Your task to perform on an android device: Clear all items from cart on newegg. Search for usb-c to usb-a on newegg, select the first entry, and add it to the cart. Image 0: 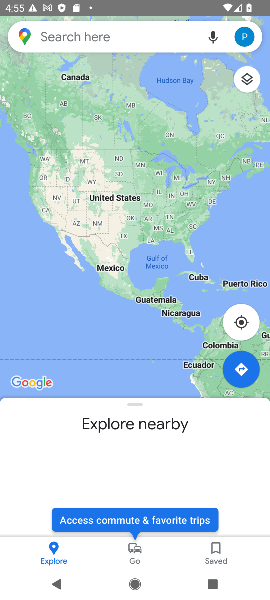
Step 0: press home button
Your task to perform on an android device: Clear all items from cart on newegg. Search for usb-c to usb-a on newegg, select the first entry, and add it to the cart. Image 1: 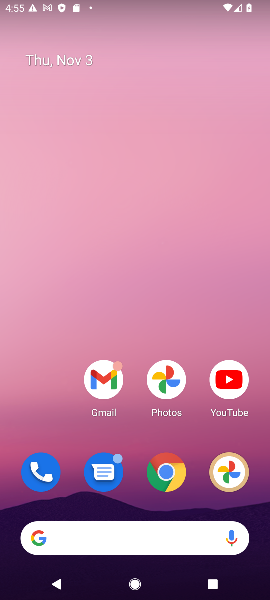
Step 1: click (170, 476)
Your task to perform on an android device: Clear all items from cart on newegg. Search for usb-c to usb-a on newegg, select the first entry, and add it to the cart. Image 2: 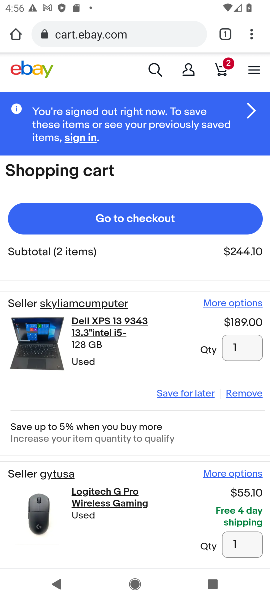
Step 2: click (86, 35)
Your task to perform on an android device: Clear all items from cart on newegg. Search for usb-c to usb-a on newegg, select the first entry, and add it to the cart. Image 3: 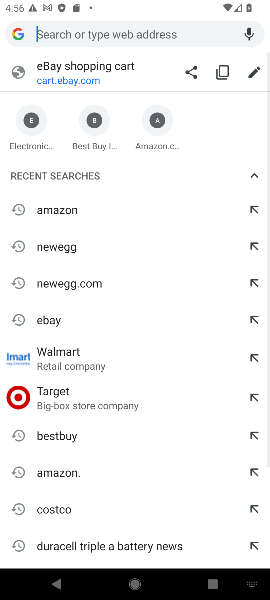
Step 3: type " newegg"
Your task to perform on an android device: Clear all items from cart on newegg. Search for usb-c to usb-a on newegg, select the first entry, and add it to the cart. Image 4: 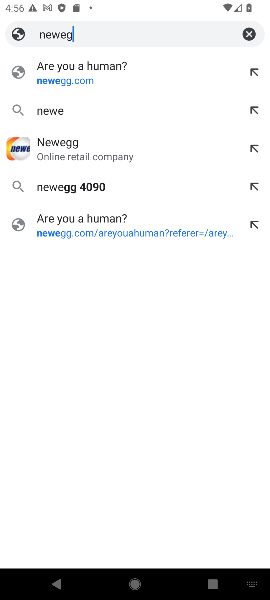
Step 4: type ""
Your task to perform on an android device: Clear all items from cart on newegg. Search for usb-c to usb-a on newegg, select the first entry, and add it to the cart. Image 5: 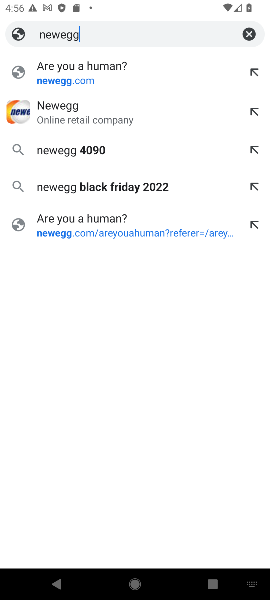
Step 5: click (76, 76)
Your task to perform on an android device: Clear all items from cart on newegg. Search for usb-c to usb-a on newegg, select the first entry, and add it to the cart. Image 6: 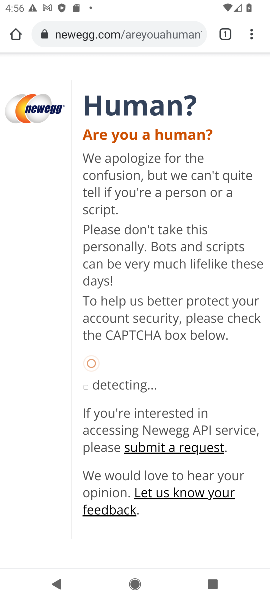
Step 6: press back button
Your task to perform on an android device: Clear all items from cart on newegg. Search for usb-c to usb-a on newegg, select the first entry, and add it to the cart. Image 7: 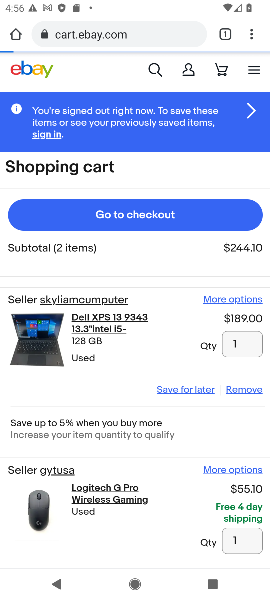
Step 7: click (83, 41)
Your task to perform on an android device: Clear all items from cart on newegg. Search for usb-c to usb-a on newegg, select the first entry, and add it to the cart. Image 8: 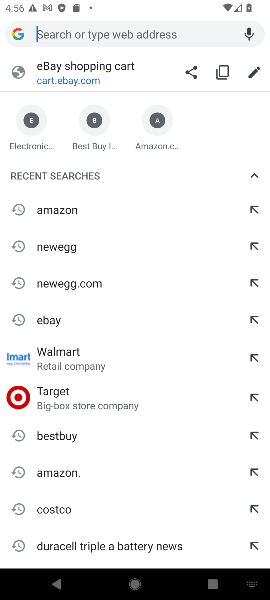
Step 8: click (103, 275)
Your task to perform on an android device: Clear all items from cart on newegg. Search for usb-c to usb-a on newegg, select the first entry, and add it to the cart. Image 9: 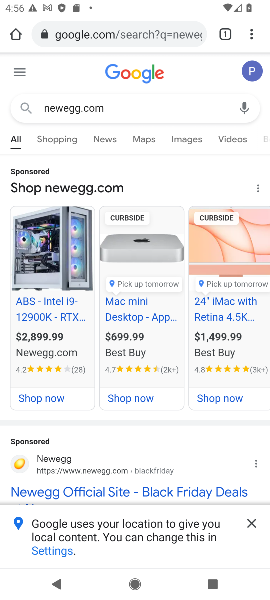
Step 9: click (113, 491)
Your task to perform on an android device: Clear all items from cart on newegg. Search for usb-c to usb-a on newegg, select the first entry, and add it to the cart. Image 10: 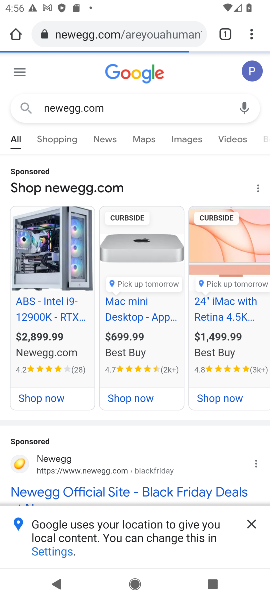
Step 10: click (253, 528)
Your task to perform on an android device: Clear all items from cart on newegg. Search for usb-c to usb-a on newegg, select the first entry, and add it to the cart. Image 11: 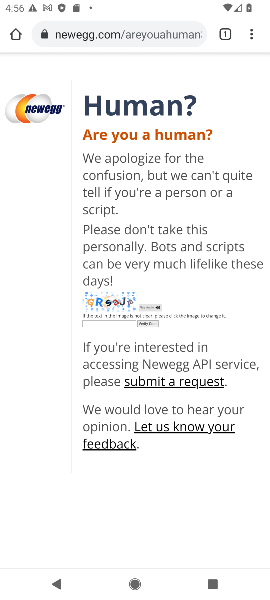
Step 11: click (104, 319)
Your task to perform on an android device: Clear all items from cart on newegg. Search for usb-c to usb-a on newegg, select the first entry, and add it to the cart. Image 12: 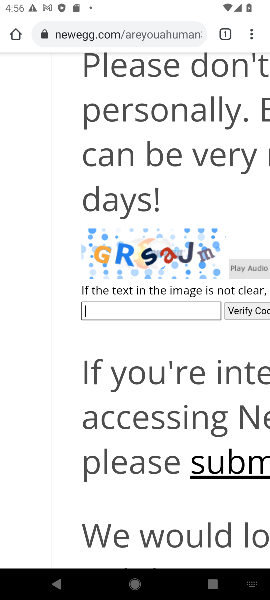
Step 12: type "GRsaJm"
Your task to perform on an android device: Clear all items from cart on newegg. Search for usb-c to usb-a on newegg, select the first entry, and add it to the cart. Image 13: 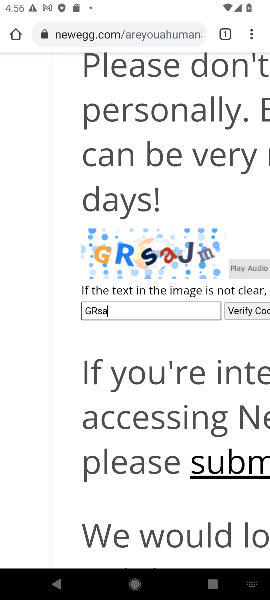
Step 13: type ""
Your task to perform on an android device: Clear all items from cart on newegg. Search for usb-c to usb-a on newegg, select the first entry, and add it to the cart. Image 14: 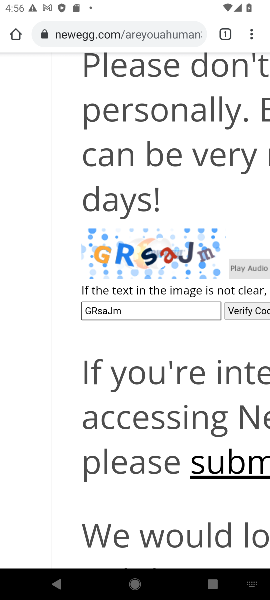
Step 14: click (247, 315)
Your task to perform on an android device: Clear all items from cart on newegg. Search for usb-c to usb-a on newegg, select the first entry, and add it to the cart. Image 15: 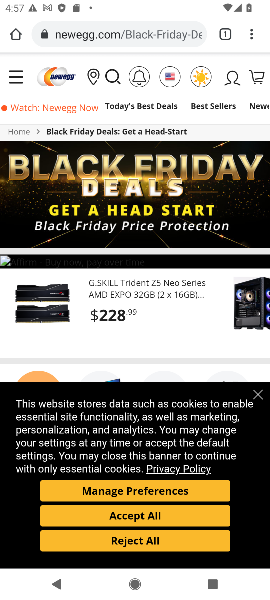
Step 15: click (148, 536)
Your task to perform on an android device: Clear all items from cart on newegg. Search for usb-c to usb-a on newegg, select the first entry, and add it to the cart. Image 16: 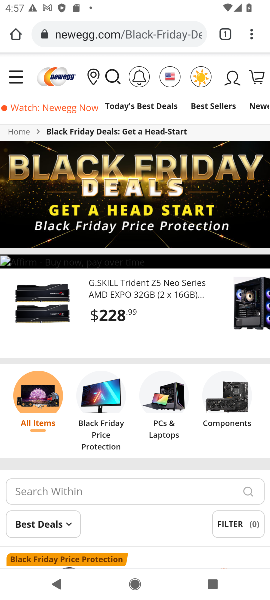
Step 16: click (115, 73)
Your task to perform on an android device: Clear all items from cart on newegg. Search for usb-c to usb-a on newegg, select the first entry, and add it to the cart. Image 17: 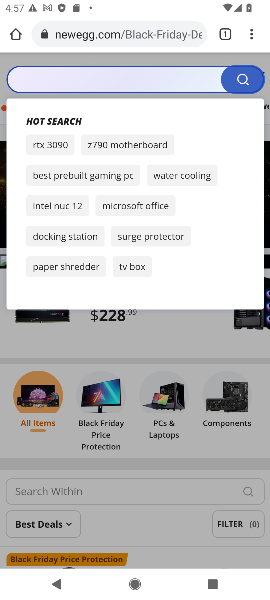
Step 17: click (128, 76)
Your task to perform on an android device: Clear all items from cart on newegg. Search for usb-c to usb-a on newegg, select the first entry, and add it to the cart. Image 18: 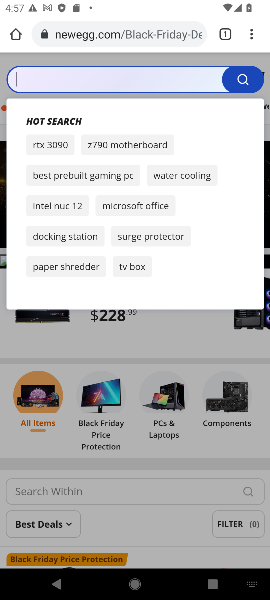
Step 18: type "usb-c to usb-a "
Your task to perform on an android device: Clear all items from cart on newegg. Search for usb-c to usb-a on newegg, select the first entry, and add it to the cart. Image 19: 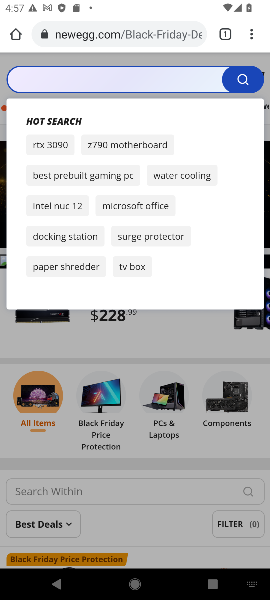
Step 19: type ""
Your task to perform on an android device: Clear all items from cart on newegg. Search for usb-c to usb-a on newegg, select the first entry, and add it to the cart. Image 20: 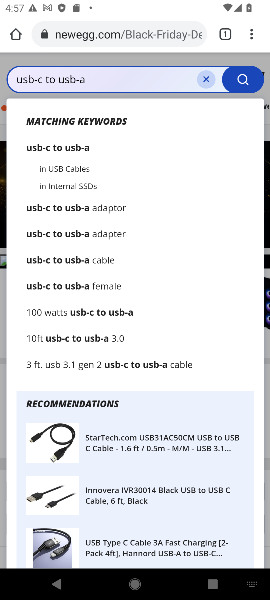
Step 20: click (241, 84)
Your task to perform on an android device: Clear all items from cart on newegg. Search for usb-c to usb-a on newegg, select the first entry, and add it to the cart. Image 21: 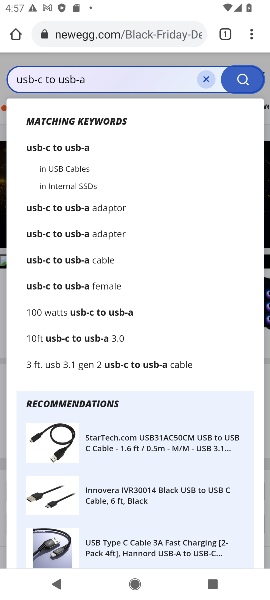
Step 21: click (95, 143)
Your task to perform on an android device: Clear all items from cart on newegg. Search for usb-c to usb-a on newegg, select the first entry, and add it to the cart. Image 22: 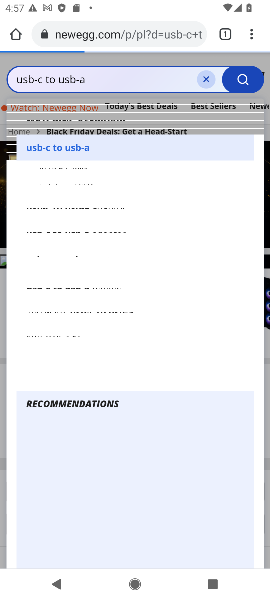
Step 22: click (238, 73)
Your task to perform on an android device: Clear all items from cart on newegg. Search for usb-c to usb-a on newegg, select the first entry, and add it to the cart. Image 23: 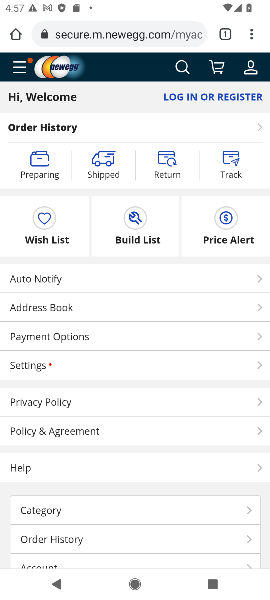
Step 23: drag from (168, 491) to (177, 314)
Your task to perform on an android device: Clear all items from cart on newegg. Search for usb-c to usb-a on newegg, select the first entry, and add it to the cart. Image 24: 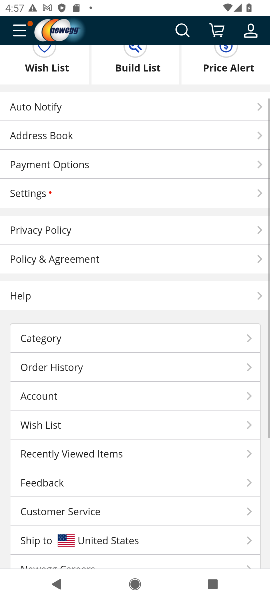
Step 24: drag from (133, 476) to (134, 337)
Your task to perform on an android device: Clear all items from cart on newegg. Search for usb-c to usb-a on newegg, select the first entry, and add it to the cart. Image 25: 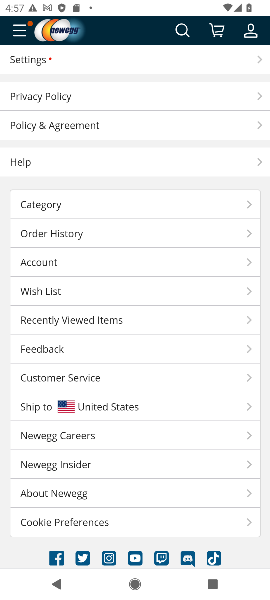
Step 25: drag from (203, 465) to (172, 163)
Your task to perform on an android device: Clear all items from cart on newegg. Search for usb-c to usb-a on newegg, select the first entry, and add it to the cart. Image 26: 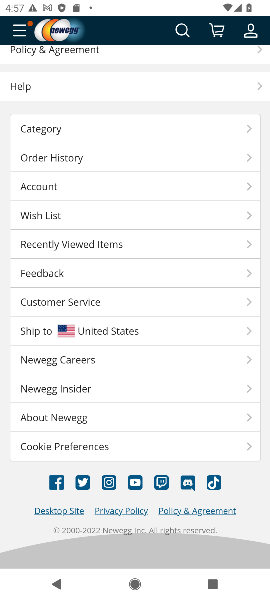
Step 26: drag from (197, 343) to (174, 93)
Your task to perform on an android device: Clear all items from cart on newegg. Search for usb-c to usb-a on newegg, select the first entry, and add it to the cart. Image 27: 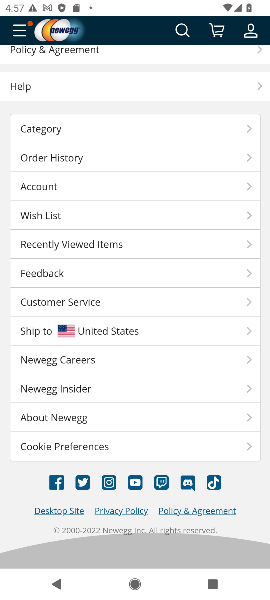
Step 27: drag from (174, 107) to (179, 463)
Your task to perform on an android device: Clear all items from cart on newegg. Search for usb-c to usb-a on newegg, select the first entry, and add it to the cart. Image 28: 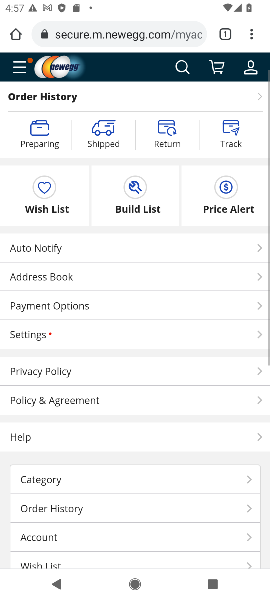
Step 28: drag from (119, 226) to (164, 445)
Your task to perform on an android device: Clear all items from cart on newegg. Search for usb-c to usb-a on newegg, select the first entry, and add it to the cart. Image 29: 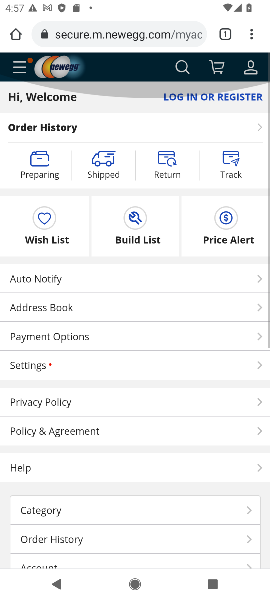
Step 29: drag from (179, 248) to (179, 446)
Your task to perform on an android device: Clear all items from cart on newegg. Search for usb-c to usb-a on newegg, select the first entry, and add it to the cart. Image 30: 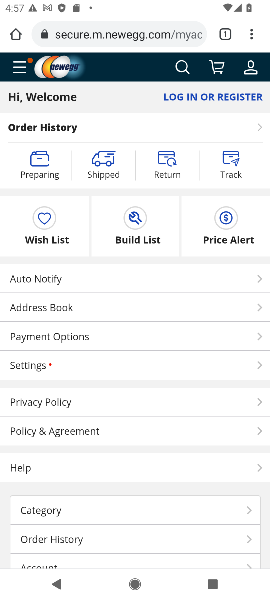
Step 30: drag from (188, 258) to (195, 377)
Your task to perform on an android device: Clear all items from cart on newegg. Search for usb-c to usb-a on newegg, select the first entry, and add it to the cart. Image 31: 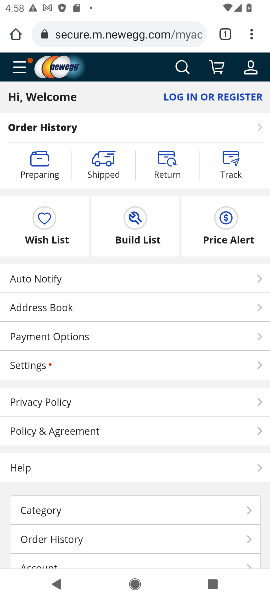
Step 31: drag from (149, 229) to (145, 498)
Your task to perform on an android device: Clear all items from cart on newegg. Search for usb-c to usb-a on newegg, select the first entry, and add it to the cart. Image 32: 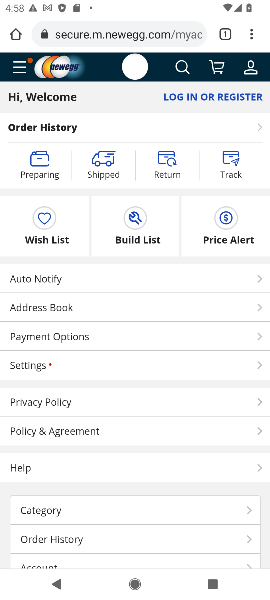
Step 32: drag from (164, 385) to (174, 485)
Your task to perform on an android device: Clear all items from cart on newegg. Search for usb-c to usb-a on newegg, select the first entry, and add it to the cart. Image 33: 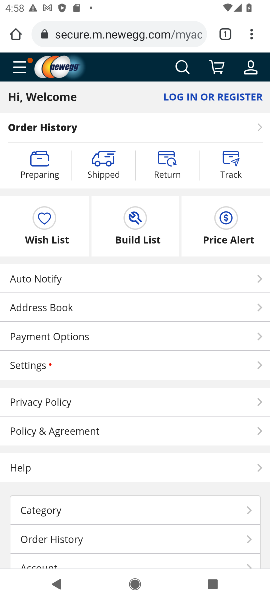
Step 33: click (173, 70)
Your task to perform on an android device: Clear all items from cart on newegg. Search for usb-c to usb-a on newegg, select the first entry, and add it to the cart. Image 34: 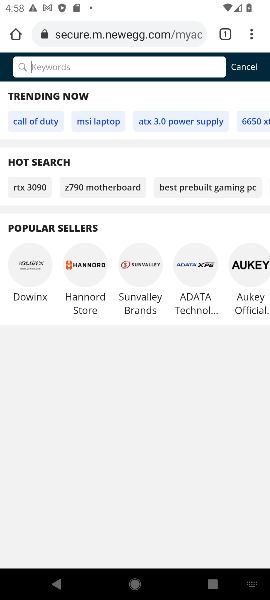
Step 34: type "usb-c to usb-a"
Your task to perform on an android device: Clear all items from cart on newegg. Search for usb-c to usb-a on newegg, select the first entry, and add it to the cart. Image 35: 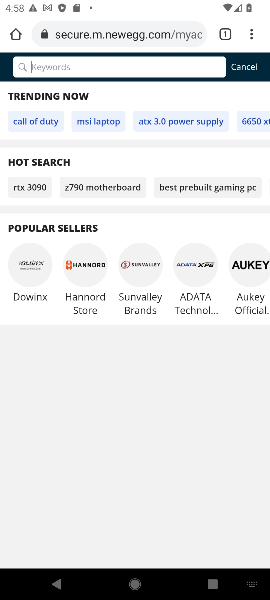
Step 35: type ""
Your task to perform on an android device: Clear all items from cart on newegg. Search for usb-c to usb-a on newegg, select the first entry, and add it to the cart. Image 36: 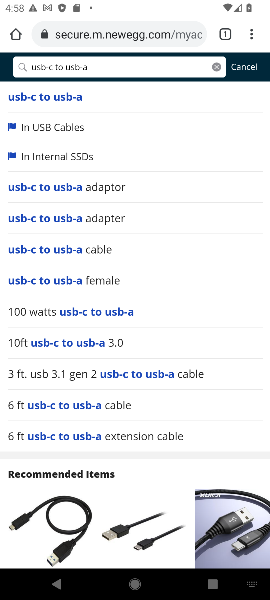
Step 36: click (14, 91)
Your task to perform on an android device: Clear all items from cart on newegg. Search for usb-c to usb-a on newegg, select the first entry, and add it to the cart. Image 37: 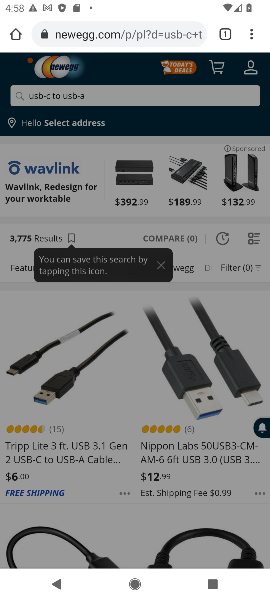
Step 37: click (70, 452)
Your task to perform on an android device: Clear all items from cart on newegg. Search for usb-c to usb-a on newegg, select the first entry, and add it to the cart. Image 38: 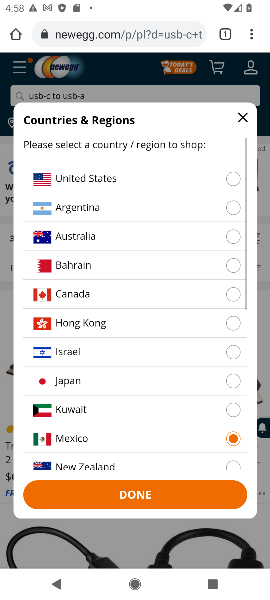
Step 38: click (226, 181)
Your task to perform on an android device: Clear all items from cart on newegg. Search for usb-c to usb-a on newegg, select the first entry, and add it to the cart. Image 39: 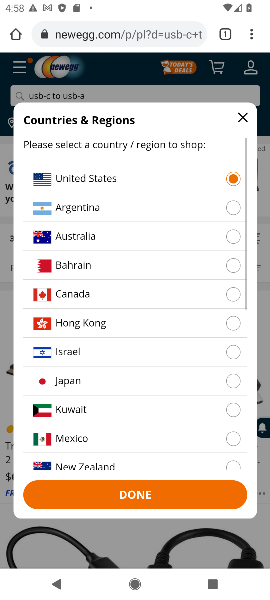
Step 39: click (111, 498)
Your task to perform on an android device: Clear all items from cart on newegg. Search for usb-c to usb-a on newegg, select the first entry, and add it to the cart. Image 40: 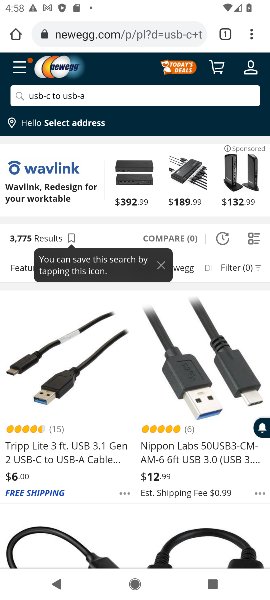
Step 40: click (40, 456)
Your task to perform on an android device: Clear all items from cart on newegg. Search for usb-c to usb-a on newegg, select the first entry, and add it to the cart. Image 41: 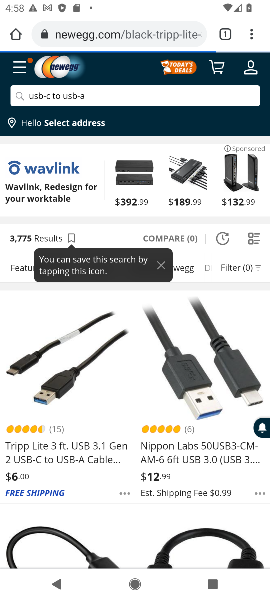
Step 41: click (38, 392)
Your task to perform on an android device: Clear all items from cart on newegg. Search for usb-c to usb-a on newegg, select the first entry, and add it to the cart. Image 42: 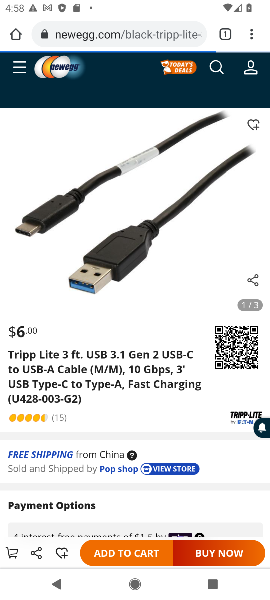
Step 42: click (99, 540)
Your task to perform on an android device: Clear all items from cart on newegg. Search for usb-c to usb-a on newegg, select the first entry, and add it to the cart. Image 43: 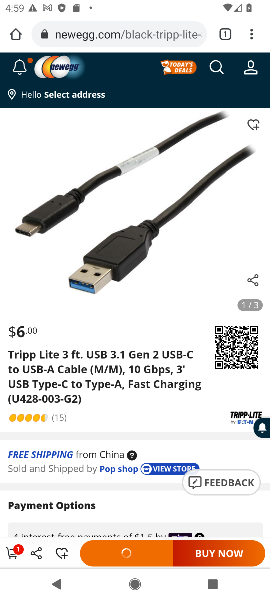
Step 43: click (14, 552)
Your task to perform on an android device: Clear all items from cart on newegg. Search for usb-c to usb-a on newegg, select the first entry, and add it to the cart. Image 44: 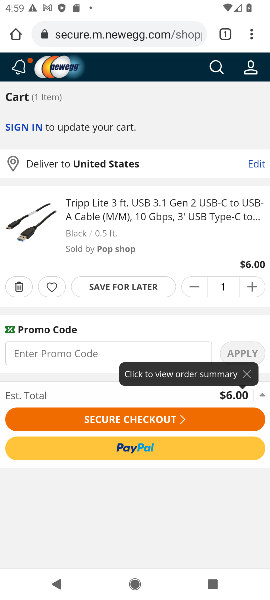
Step 44: click (96, 417)
Your task to perform on an android device: Clear all items from cart on newegg. Search for usb-c to usb-a on newegg, select the first entry, and add it to the cart. Image 45: 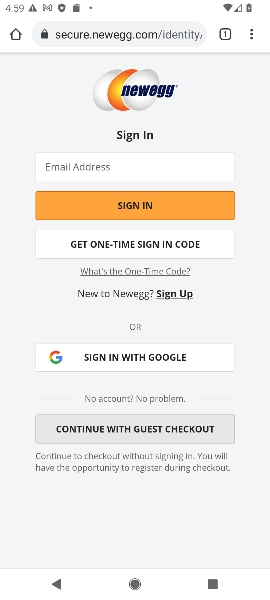
Step 45: click (96, 417)
Your task to perform on an android device: Clear all items from cart on newegg. Search for usb-c to usb-a on newegg, select the first entry, and add it to the cart. Image 46: 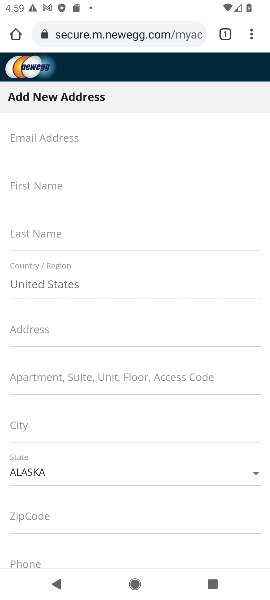
Step 46: task complete